Your task to perform on an android device: turn pop-ups off in chrome Image 0: 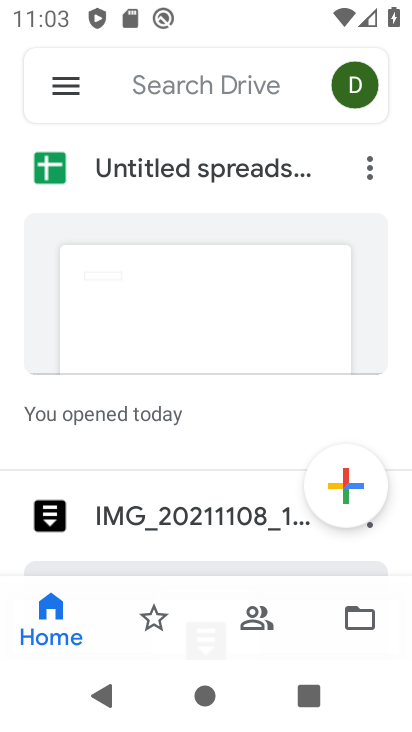
Step 0: press home button
Your task to perform on an android device: turn pop-ups off in chrome Image 1: 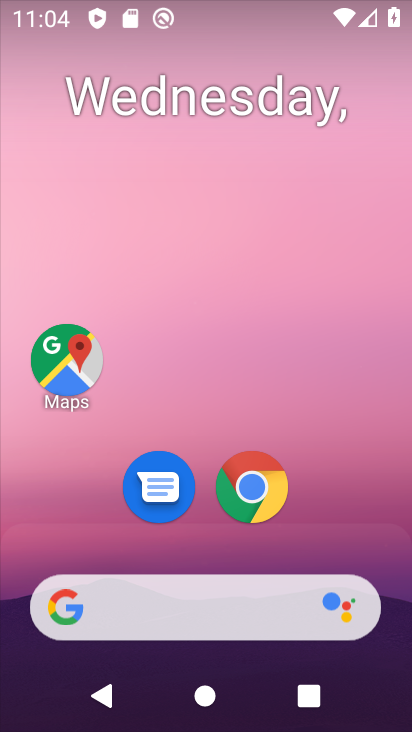
Step 1: click (257, 483)
Your task to perform on an android device: turn pop-ups off in chrome Image 2: 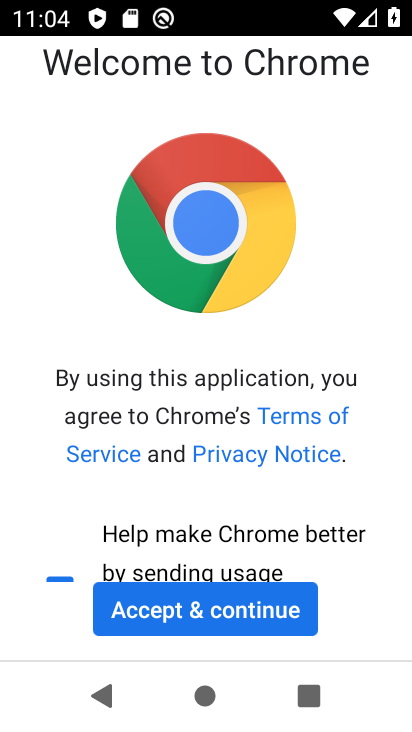
Step 2: click (208, 608)
Your task to perform on an android device: turn pop-ups off in chrome Image 3: 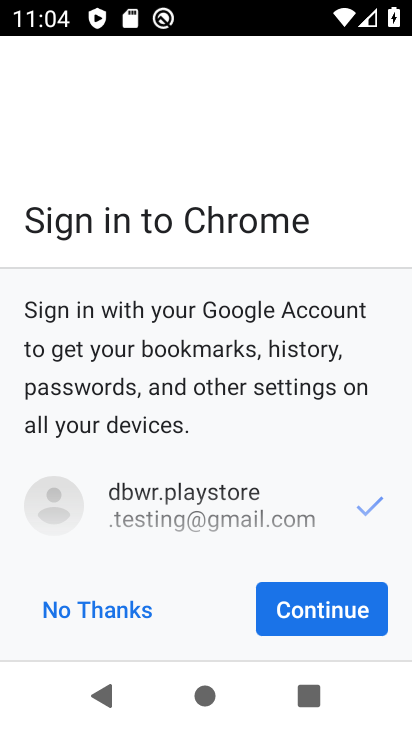
Step 3: click (98, 620)
Your task to perform on an android device: turn pop-ups off in chrome Image 4: 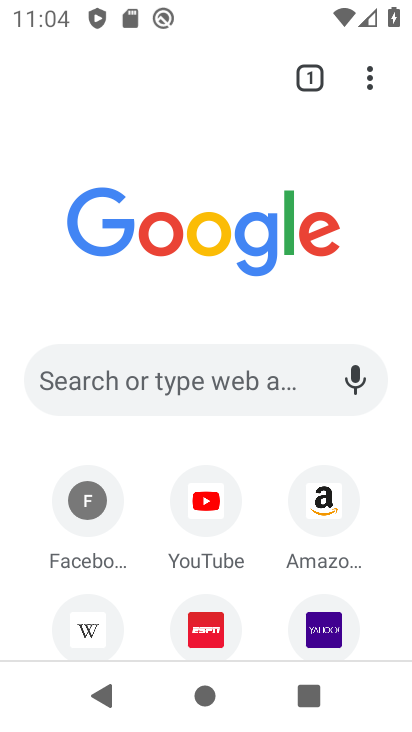
Step 4: click (372, 89)
Your task to perform on an android device: turn pop-ups off in chrome Image 5: 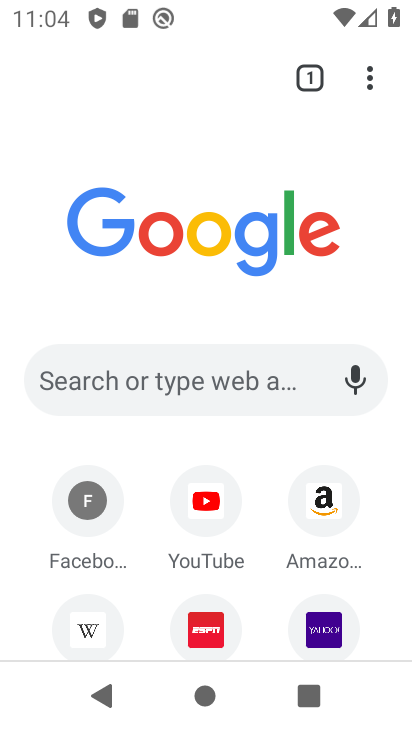
Step 5: click (372, 89)
Your task to perform on an android device: turn pop-ups off in chrome Image 6: 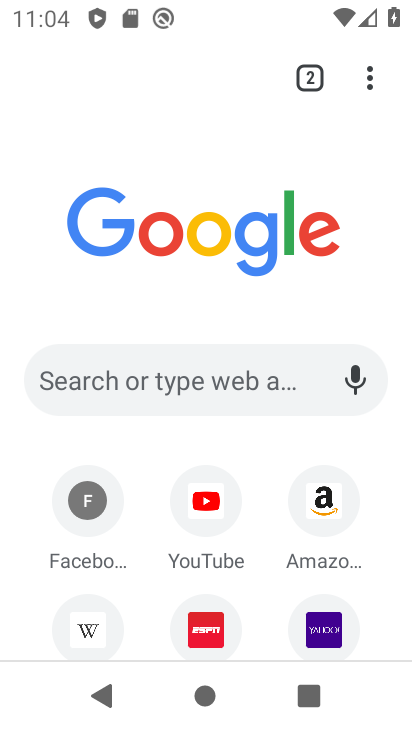
Step 6: click (371, 79)
Your task to perform on an android device: turn pop-ups off in chrome Image 7: 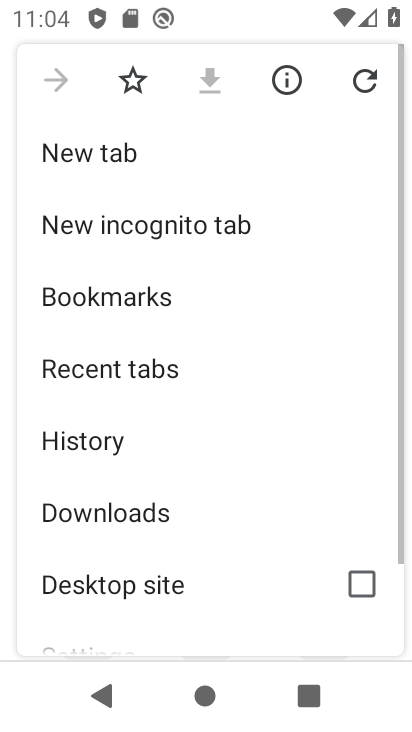
Step 7: drag from (201, 523) to (159, 163)
Your task to perform on an android device: turn pop-ups off in chrome Image 8: 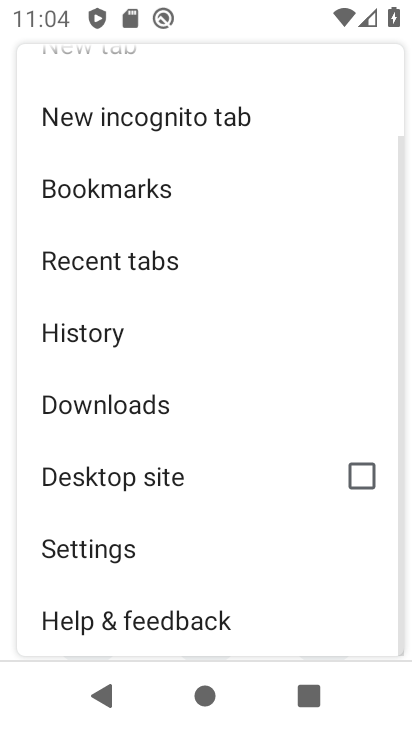
Step 8: click (113, 561)
Your task to perform on an android device: turn pop-ups off in chrome Image 9: 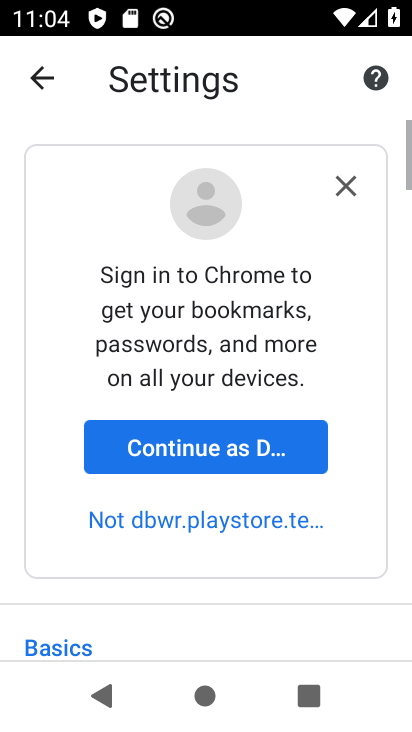
Step 9: drag from (192, 579) to (133, 64)
Your task to perform on an android device: turn pop-ups off in chrome Image 10: 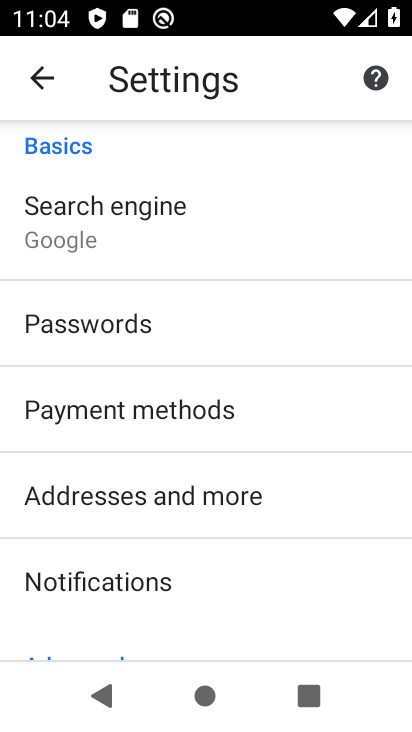
Step 10: drag from (170, 572) to (139, 80)
Your task to perform on an android device: turn pop-ups off in chrome Image 11: 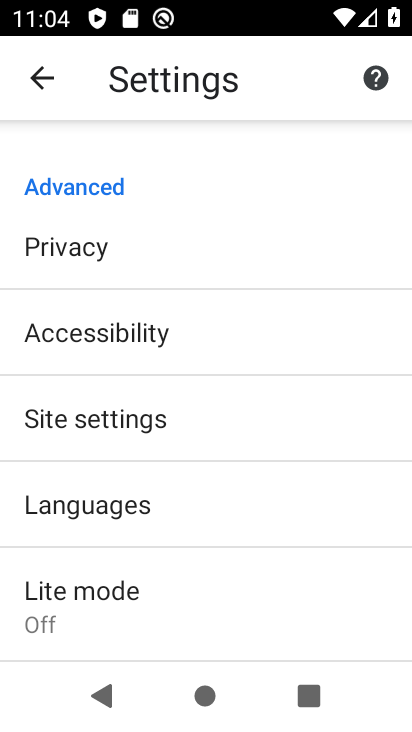
Step 11: click (123, 416)
Your task to perform on an android device: turn pop-ups off in chrome Image 12: 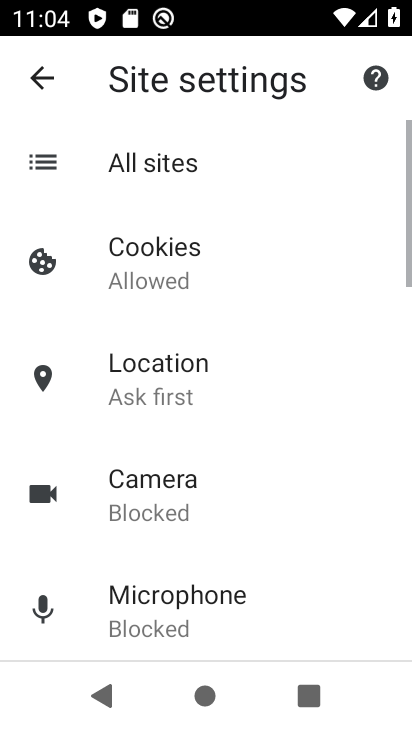
Step 12: drag from (277, 570) to (279, 166)
Your task to perform on an android device: turn pop-ups off in chrome Image 13: 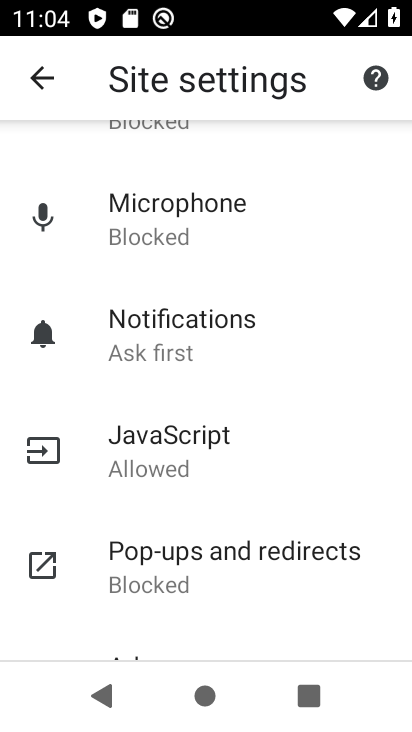
Step 13: click (139, 560)
Your task to perform on an android device: turn pop-ups off in chrome Image 14: 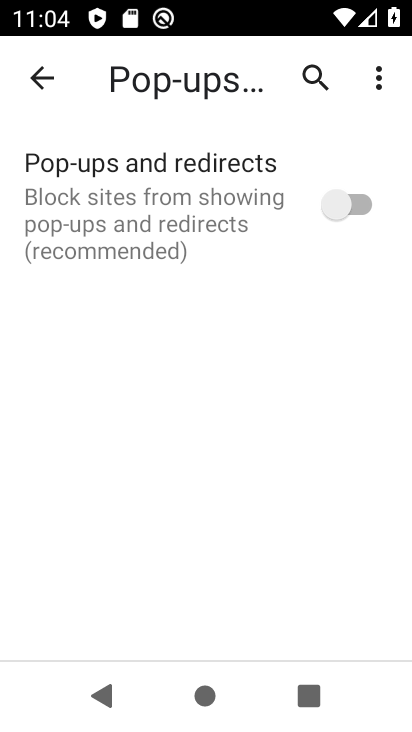
Step 14: task complete